Your task to perform on an android device: change notification settings in the gmail app Image 0: 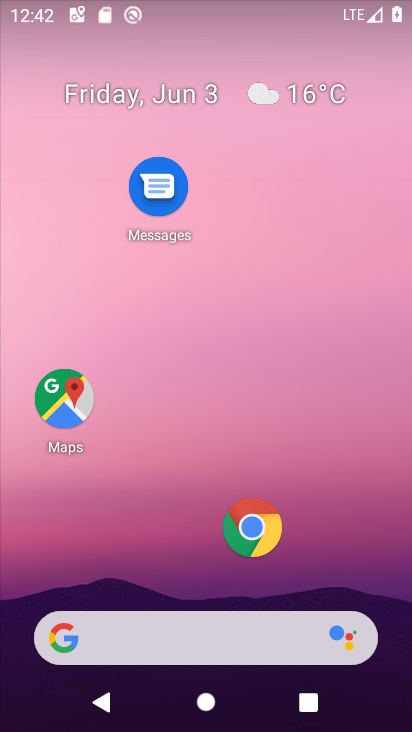
Step 0: press home button
Your task to perform on an android device: change notification settings in the gmail app Image 1: 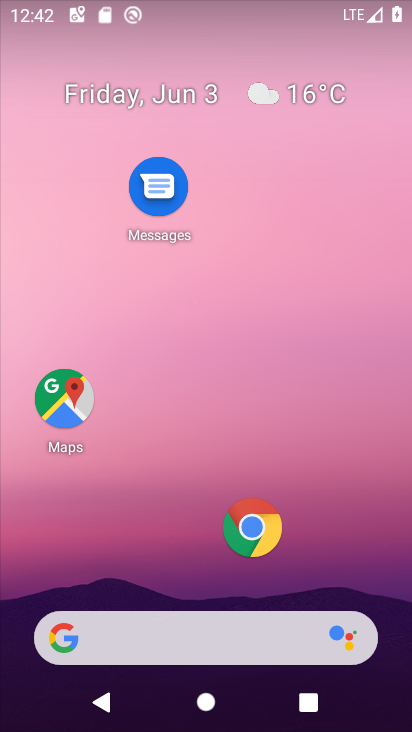
Step 1: drag from (312, 585) to (341, 48)
Your task to perform on an android device: change notification settings in the gmail app Image 2: 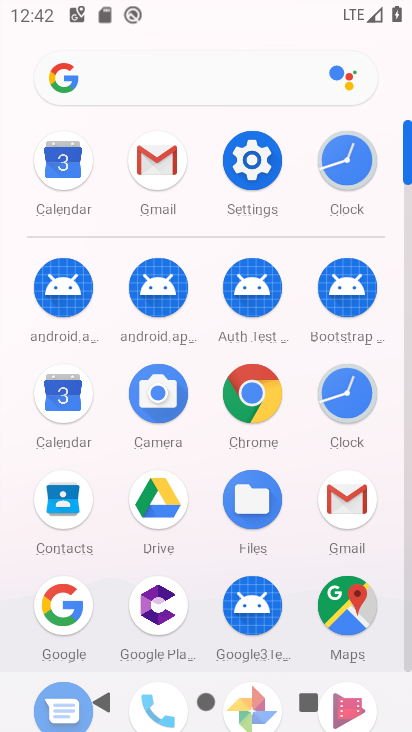
Step 2: click (154, 153)
Your task to perform on an android device: change notification settings in the gmail app Image 3: 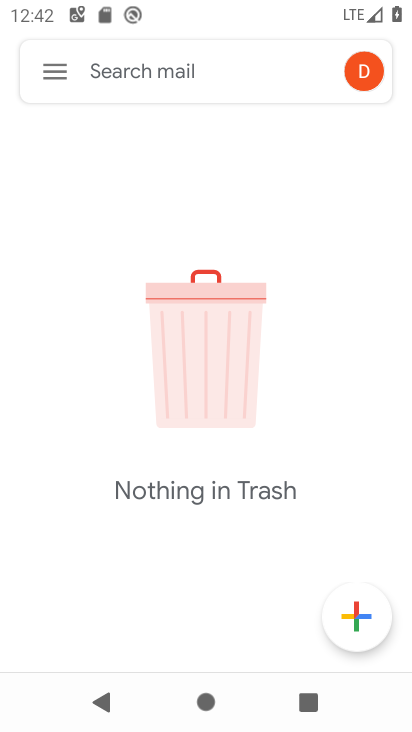
Step 3: click (46, 66)
Your task to perform on an android device: change notification settings in the gmail app Image 4: 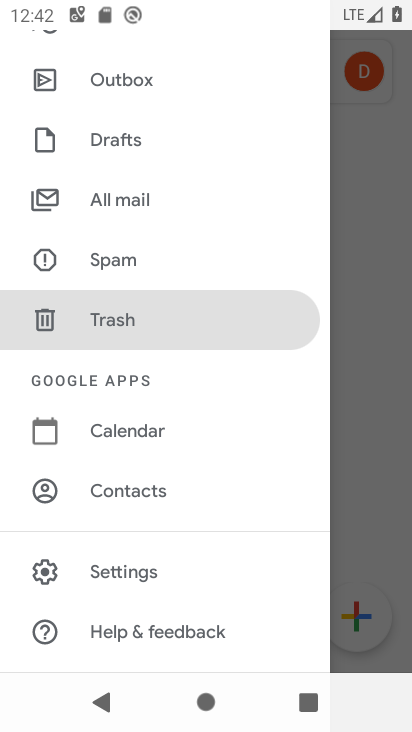
Step 4: click (160, 563)
Your task to perform on an android device: change notification settings in the gmail app Image 5: 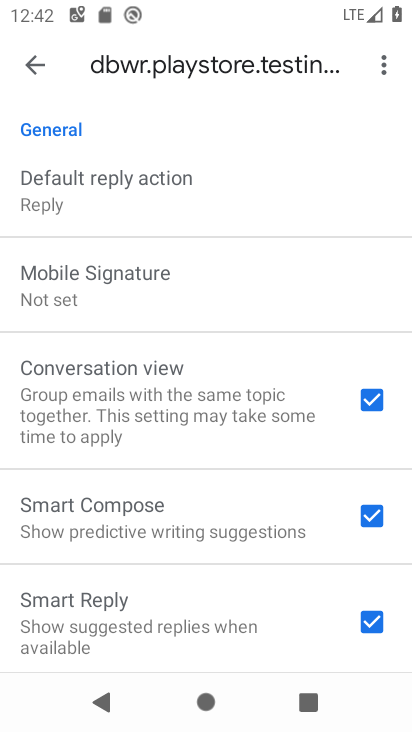
Step 5: click (31, 64)
Your task to perform on an android device: change notification settings in the gmail app Image 6: 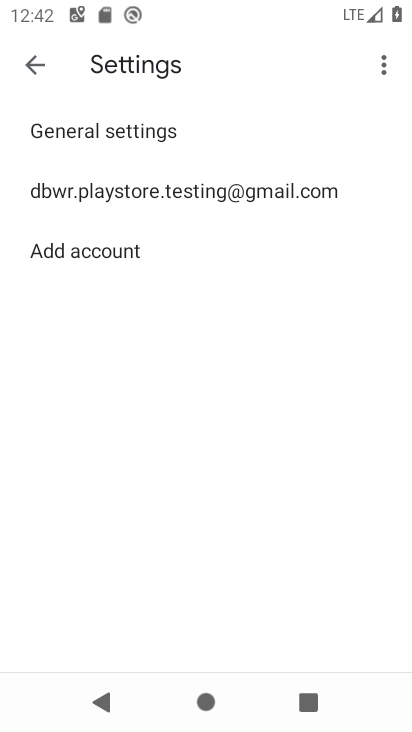
Step 6: click (193, 127)
Your task to perform on an android device: change notification settings in the gmail app Image 7: 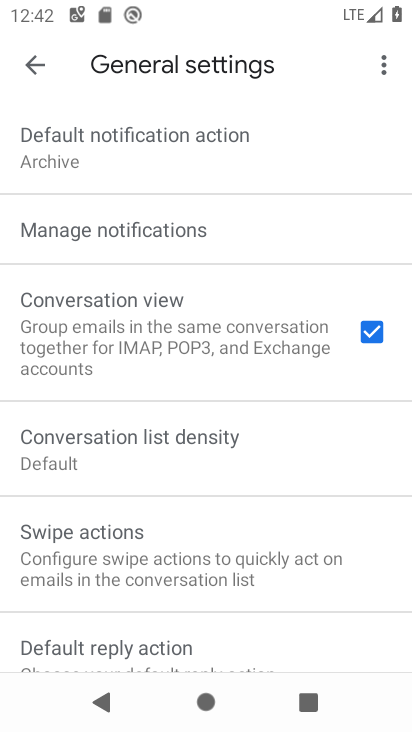
Step 7: click (212, 234)
Your task to perform on an android device: change notification settings in the gmail app Image 8: 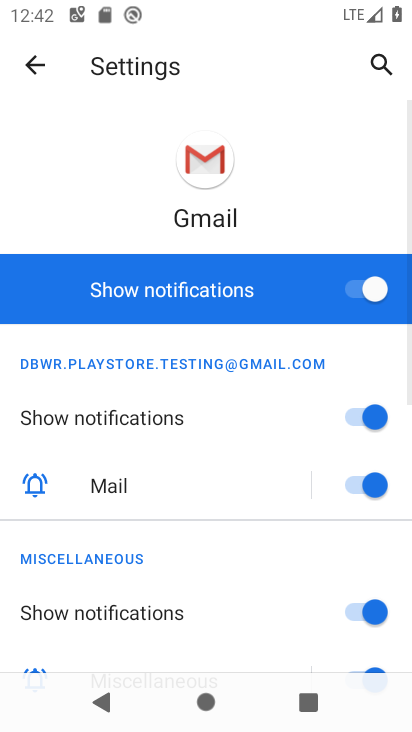
Step 8: click (363, 289)
Your task to perform on an android device: change notification settings in the gmail app Image 9: 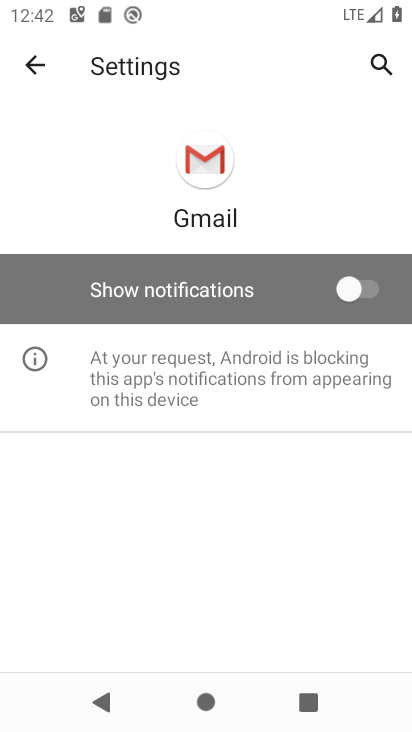
Step 9: task complete